Your task to perform on an android device: open a new tab in the chrome app Image 0: 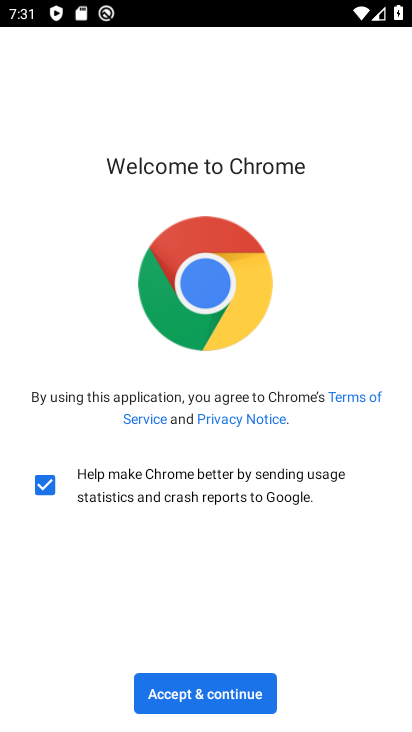
Step 0: press home button
Your task to perform on an android device: open a new tab in the chrome app Image 1: 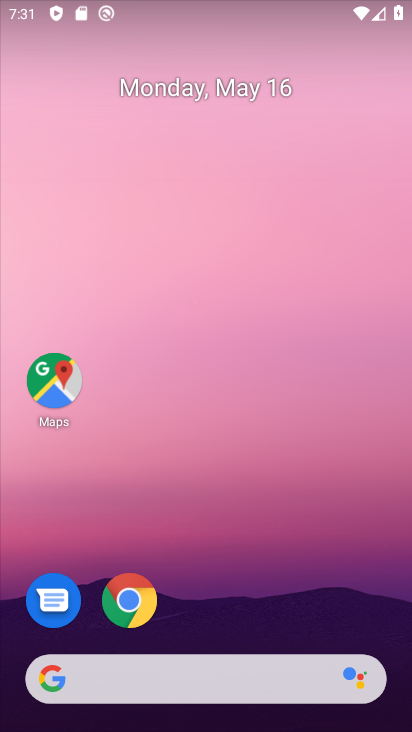
Step 1: click (128, 599)
Your task to perform on an android device: open a new tab in the chrome app Image 2: 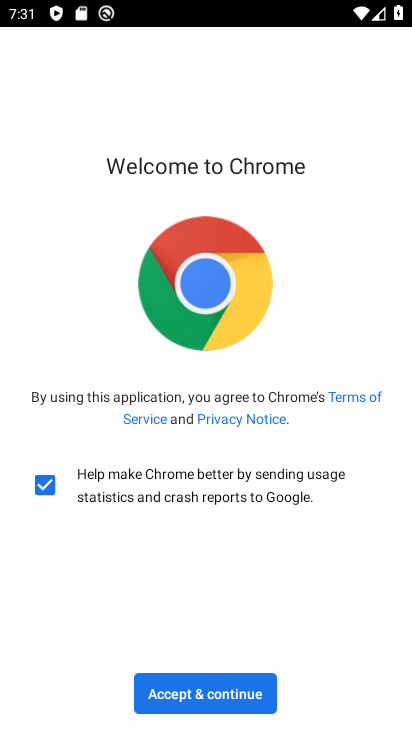
Step 2: click (200, 686)
Your task to perform on an android device: open a new tab in the chrome app Image 3: 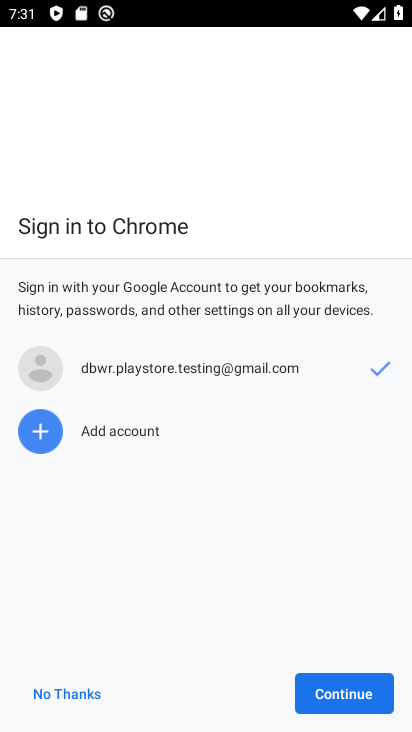
Step 3: click (411, 678)
Your task to perform on an android device: open a new tab in the chrome app Image 4: 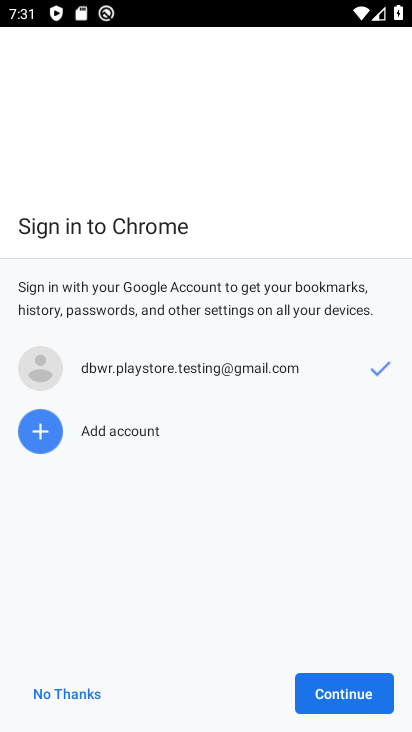
Step 4: click (374, 697)
Your task to perform on an android device: open a new tab in the chrome app Image 5: 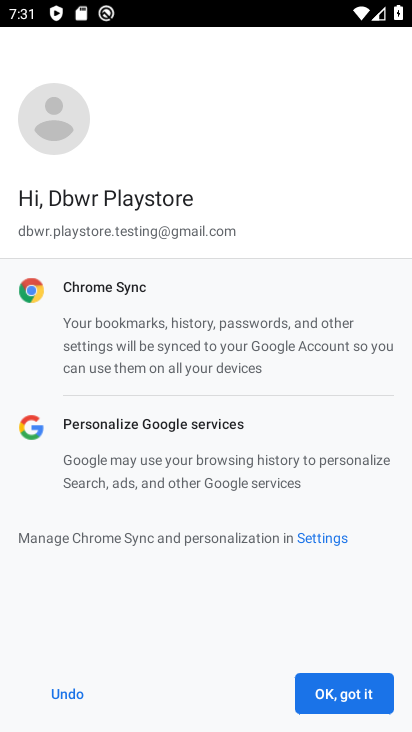
Step 5: click (374, 697)
Your task to perform on an android device: open a new tab in the chrome app Image 6: 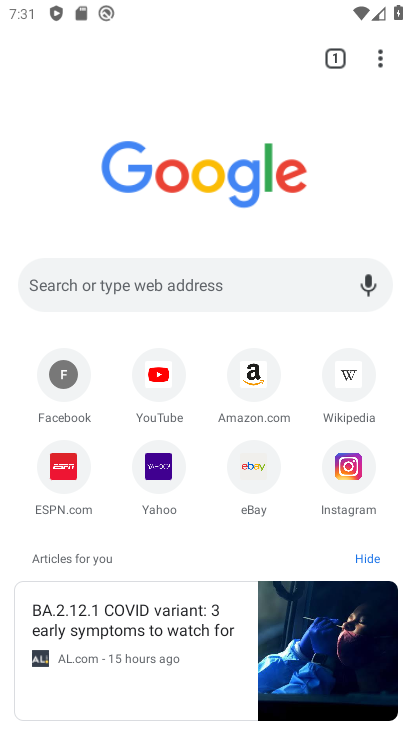
Step 6: task complete